Your task to perform on an android device: When is my next appointment? Image 0: 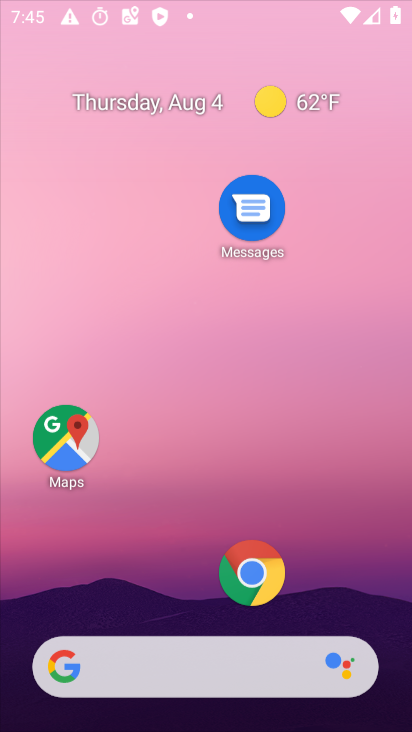
Step 0: press home button
Your task to perform on an android device: When is my next appointment? Image 1: 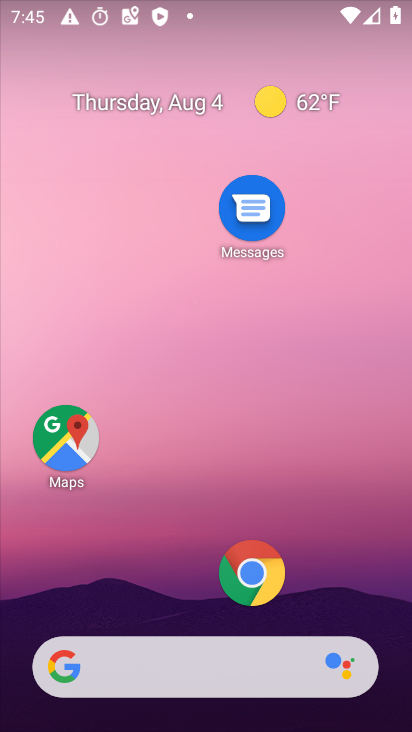
Step 1: drag from (181, 610) to (223, 96)
Your task to perform on an android device: When is my next appointment? Image 2: 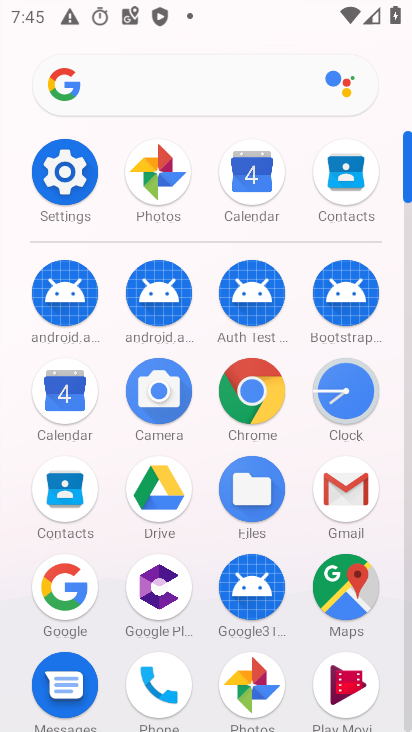
Step 2: click (59, 407)
Your task to perform on an android device: When is my next appointment? Image 3: 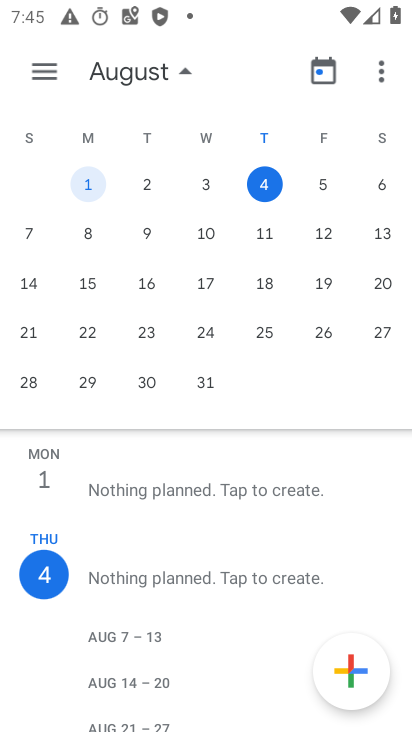
Step 3: click (55, 60)
Your task to perform on an android device: When is my next appointment? Image 4: 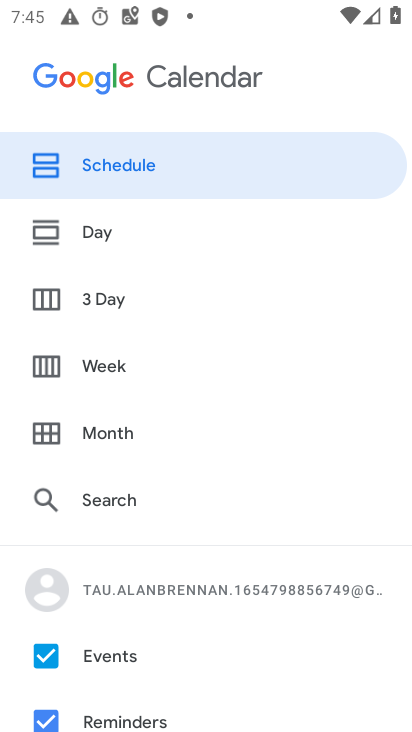
Step 4: click (78, 177)
Your task to perform on an android device: When is my next appointment? Image 5: 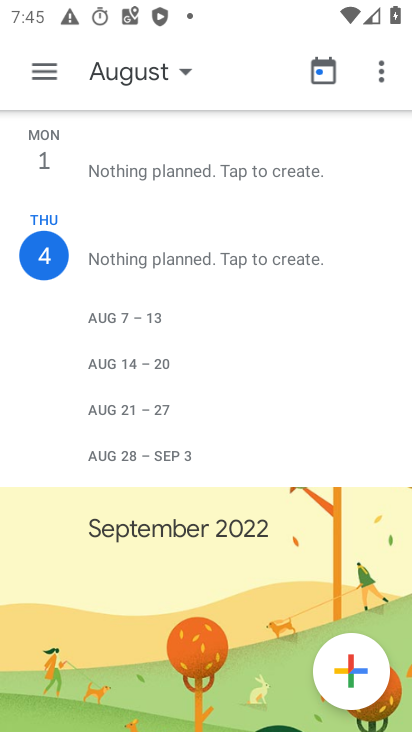
Step 5: task complete